Your task to perform on an android device: check google app version Image 0: 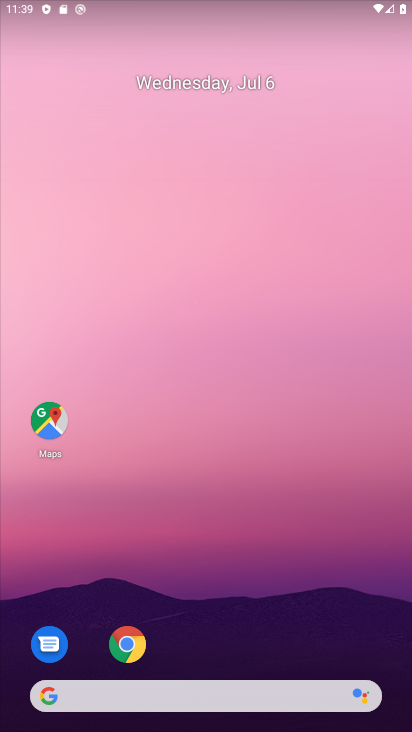
Step 0: drag from (164, 694) to (174, 135)
Your task to perform on an android device: check google app version Image 1: 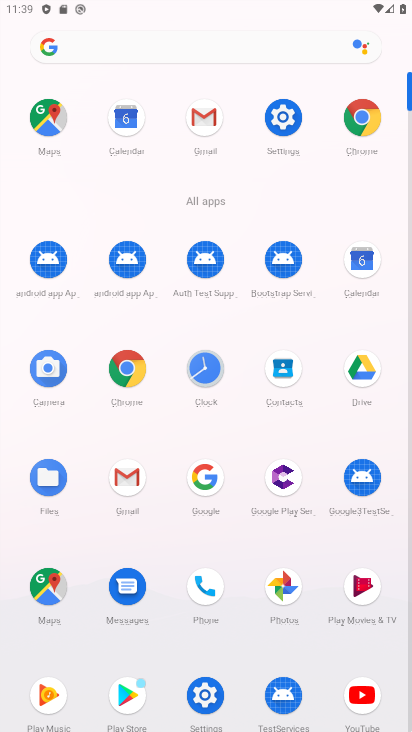
Step 1: click (205, 484)
Your task to perform on an android device: check google app version Image 2: 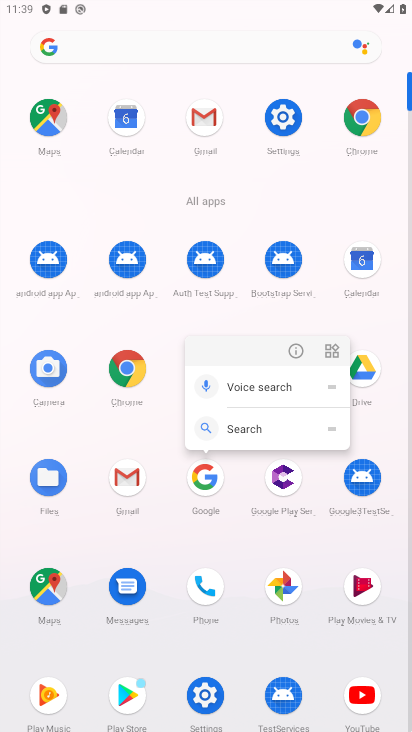
Step 2: click (295, 349)
Your task to perform on an android device: check google app version Image 3: 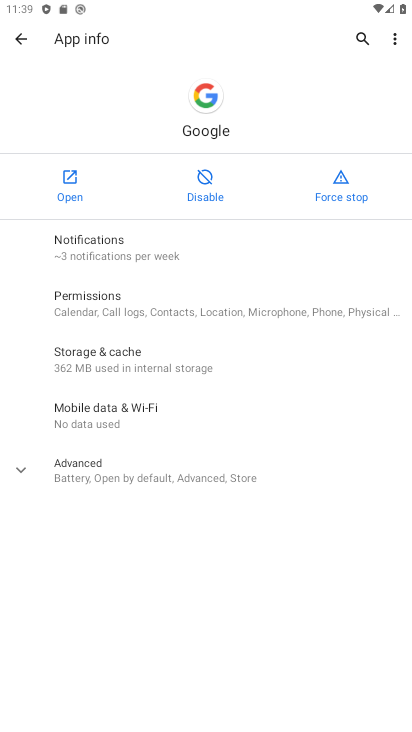
Step 3: click (130, 460)
Your task to perform on an android device: check google app version Image 4: 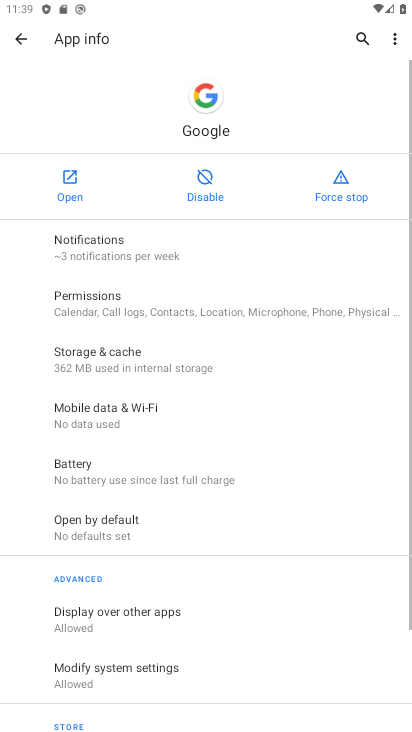
Step 4: task complete